Your task to perform on an android device: Set the phone to "Do not disturb". Image 0: 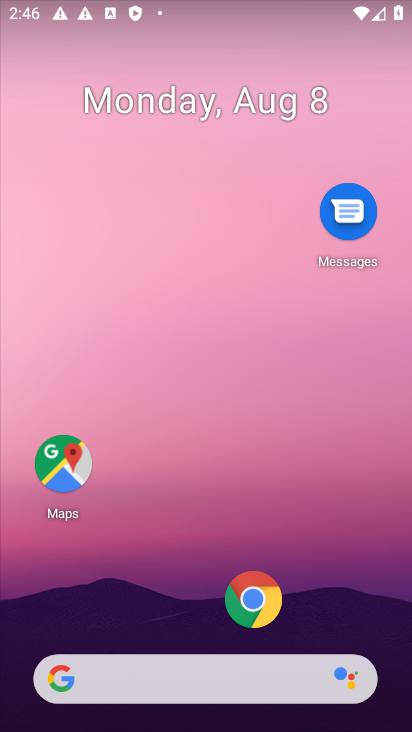
Step 0: drag from (158, 4) to (151, 589)
Your task to perform on an android device: Set the phone to "Do not disturb". Image 1: 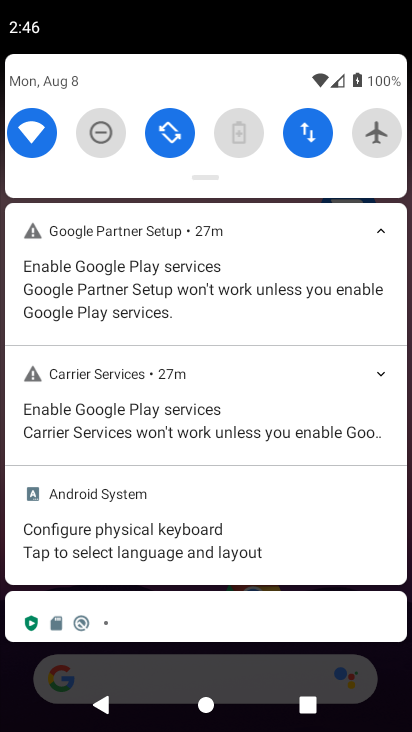
Step 1: click (102, 125)
Your task to perform on an android device: Set the phone to "Do not disturb". Image 2: 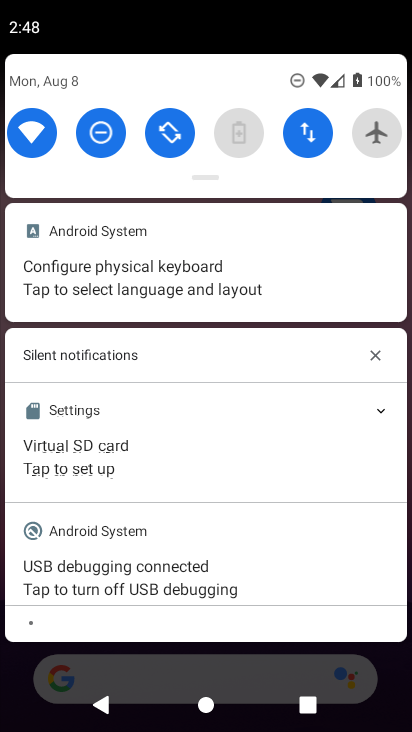
Step 2: task complete